Your task to perform on an android device: What is the recent news? Image 0: 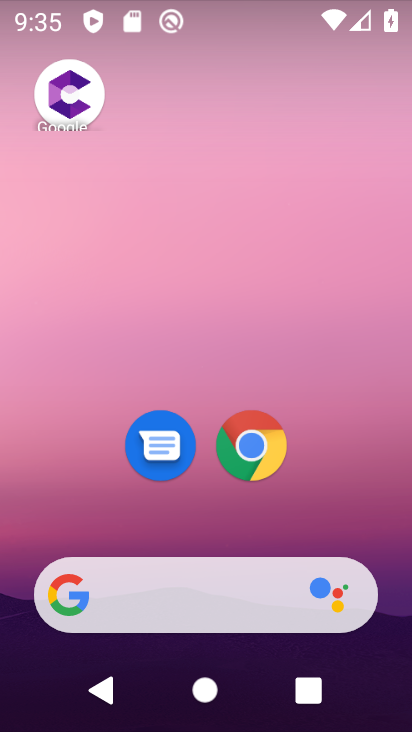
Step 0: drag from (7, 303) to (368, 321)
Your task to perform on an android device: What is the recent news? Image 1: 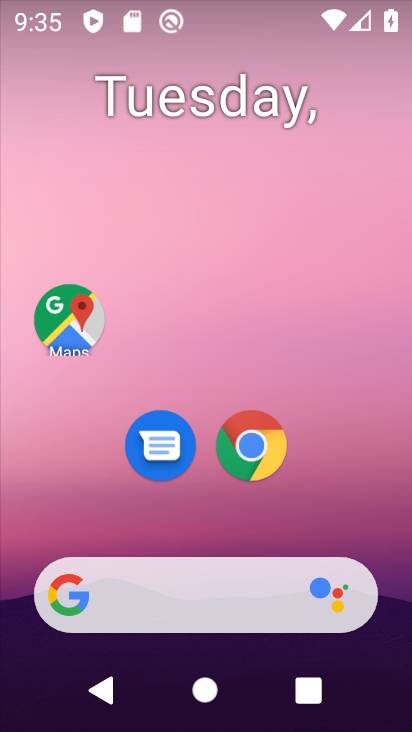
Step 1: task complete